Your task to perform on an android device: turn off notifications settings in the gmail app Image 0: 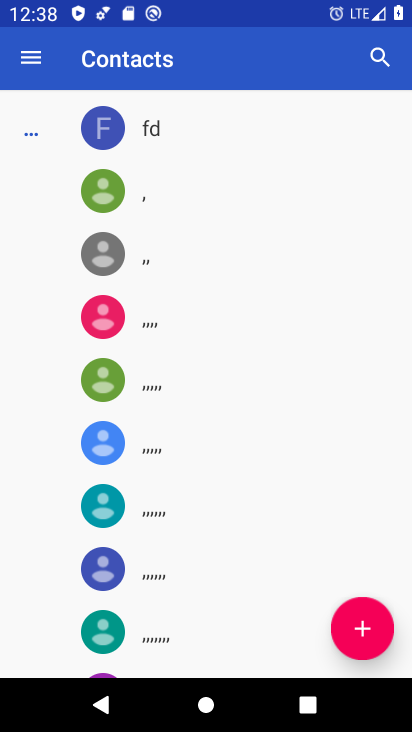
Step 0: press home button
Your task to perform on an android device: turn off notifications settings in the gmail app Image 1: 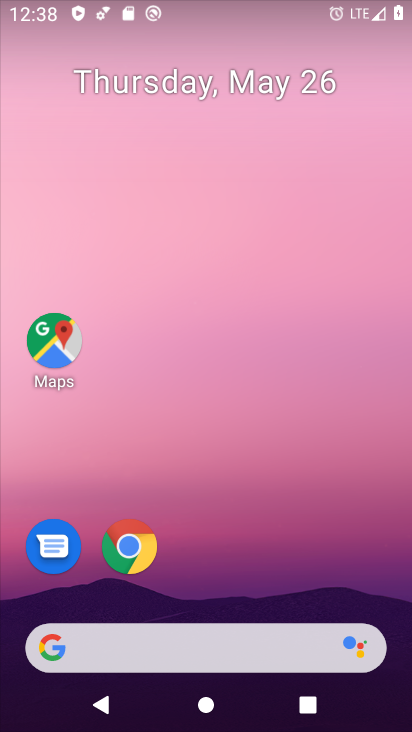
Step 1: drag from (321, 608) to (278, 27)
Your task to perform on an android device: turn off notifications settings in the gmail app Image 2: 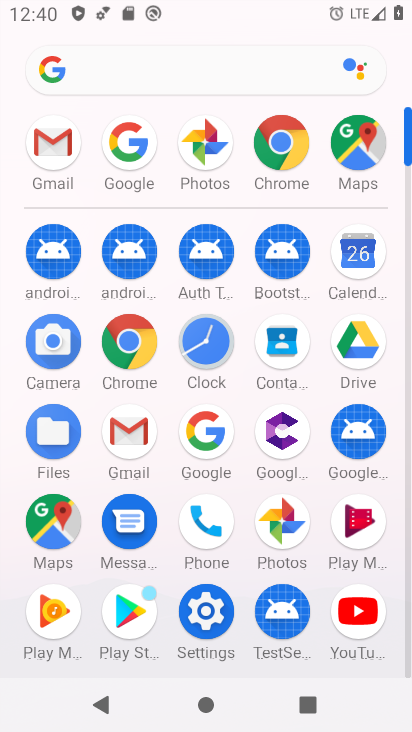
Step 2: click (145, 448)
Your task to perform on an android device: turn off notifications settings in the gmail app Image 3: 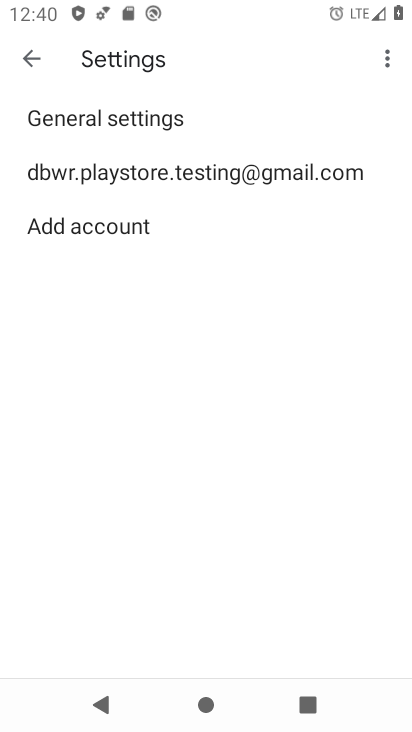
Step 3: click (264, 188)
Your task to perform on an android device: turn off notifications settings in the gmail app Image 4: 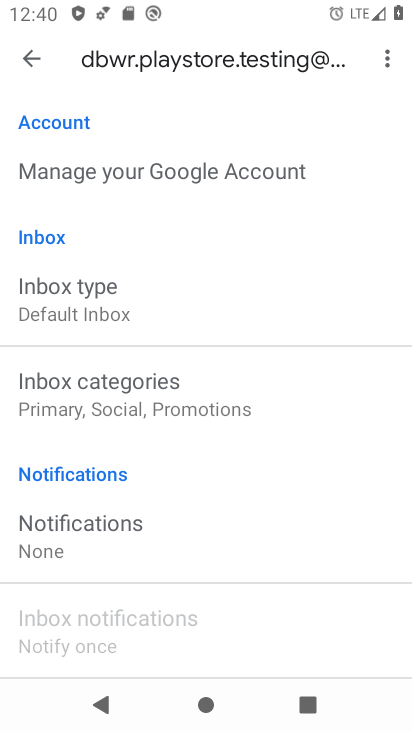
Step 4: click (98, 555)
Your task to perform on an android device: turn off notifications settings in the gmail app Image 5: 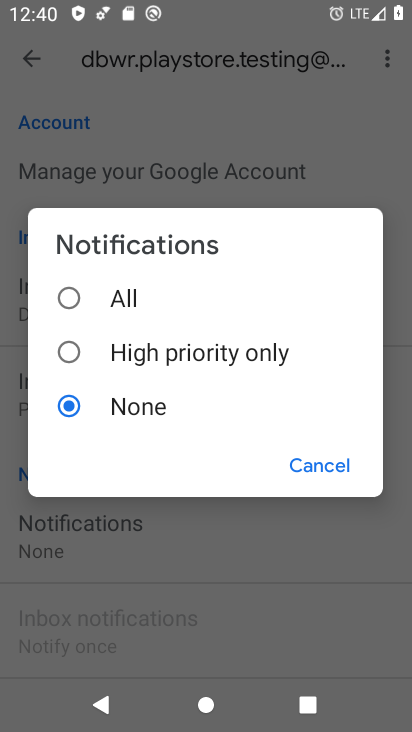
Step 5: click (136, 404)
Your task to perform on an android device: turn off notifications settings in the gmail app Image 6: 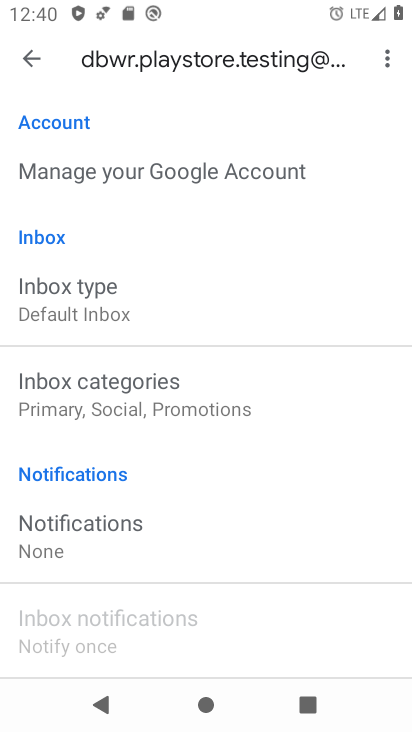
Step 6: task complete